Your task to perform on an android device: Go to network settings Image 0: 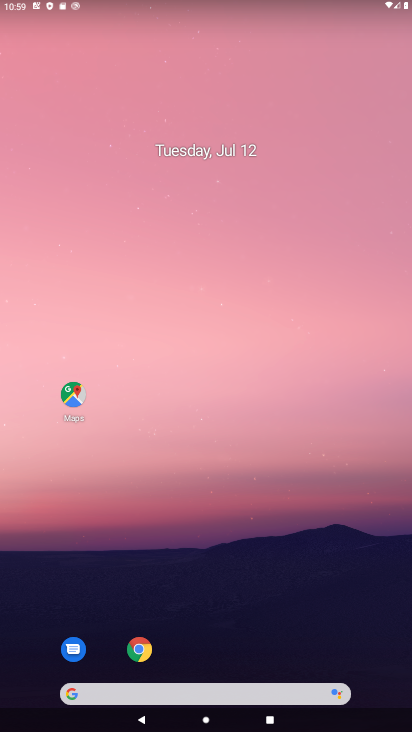
Step 0: drag from (387, 661) to (343, 64)
Your task to perform on an android device: Go to network settings Image 1: 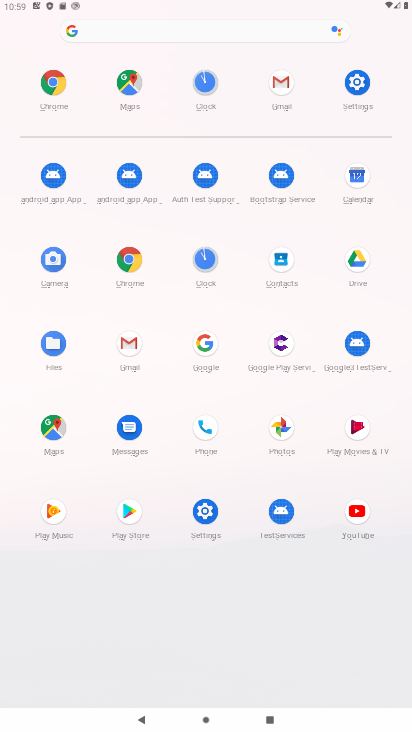
Step 1: click (206, 512)
Your task to perform on an android device: Go to network settings Image 2: 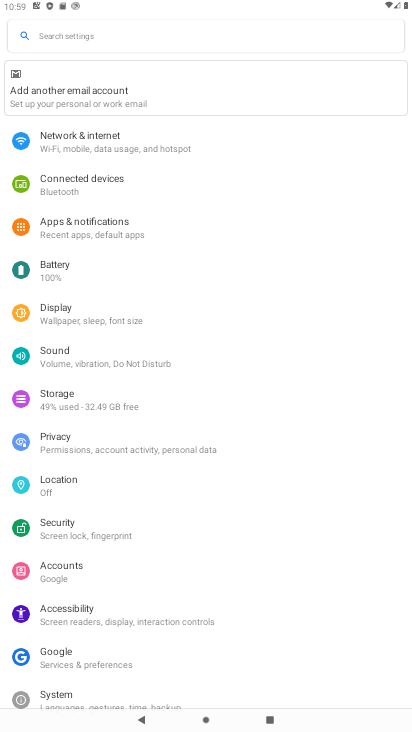
Step 2: click (72, 127)
Your task to perform on an android device: Go to network settings Image 3: 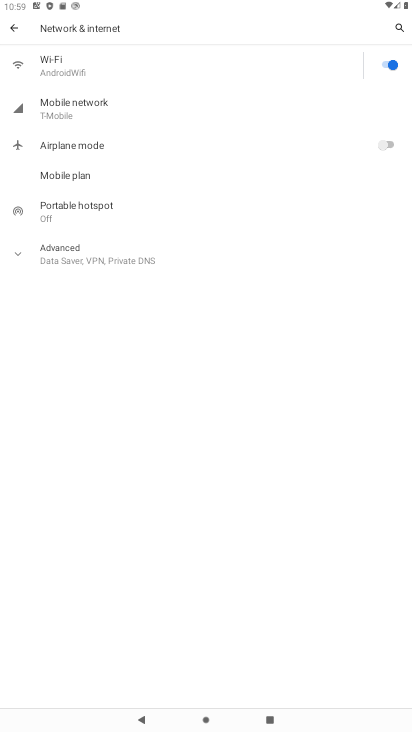
Step 3: click (11, 253)
Your task to perform on an android device: Go to network settings Image 4: 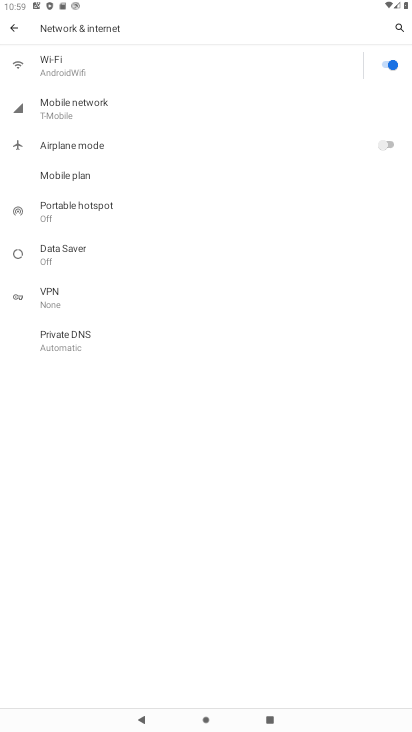
Step 4: click (80, 99)
Your task to perform on an android device: Go to network settings Image 5: 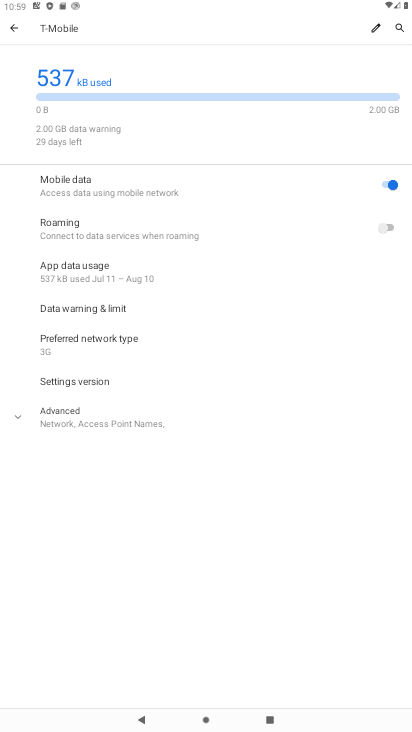
Step 5: click (24, 414)
Your task to perform on an android device: Go to network settings Image 6: 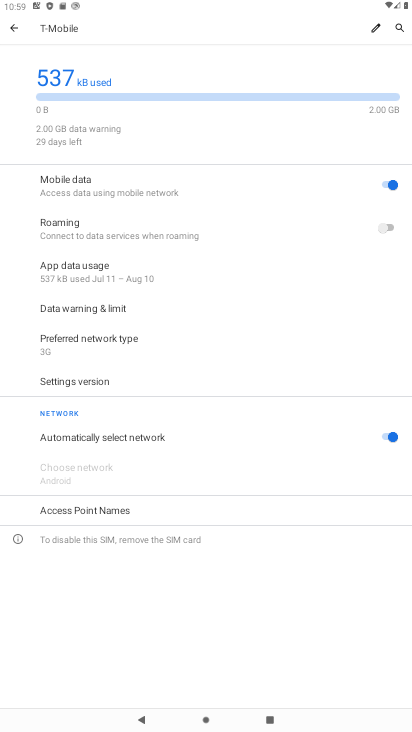
Step 6: task complete